Your task to perform on an android device: turn off data saver in the chrome app Image 0: 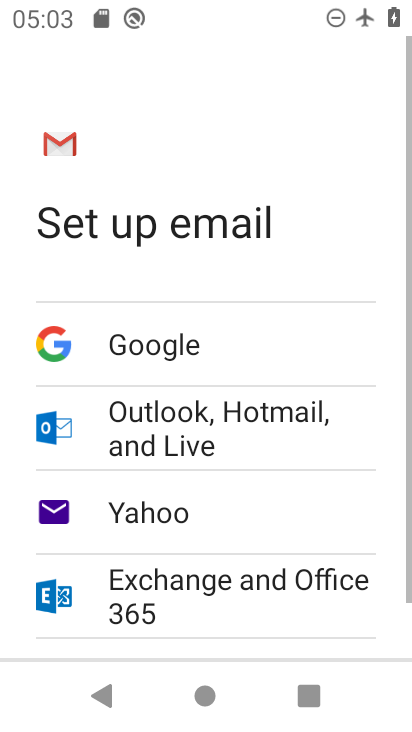
Step 0: press home button
Your task to perform on an android device: turn off data saver in the chrome app Image 1: 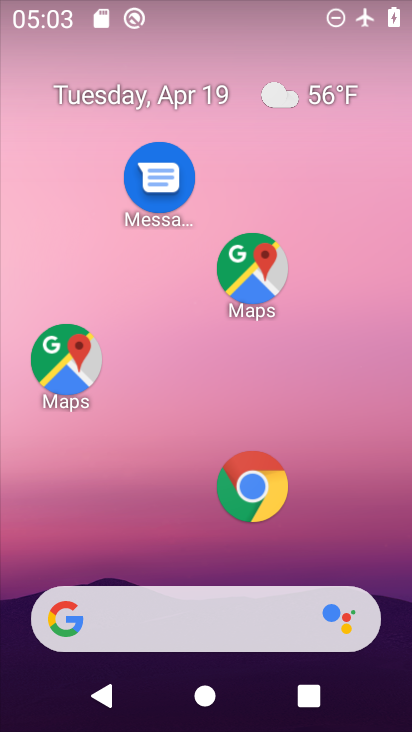
Step 1: click (267, 488)
Your task to perform on an android device: turn off data saver in the chrome app Image 2: 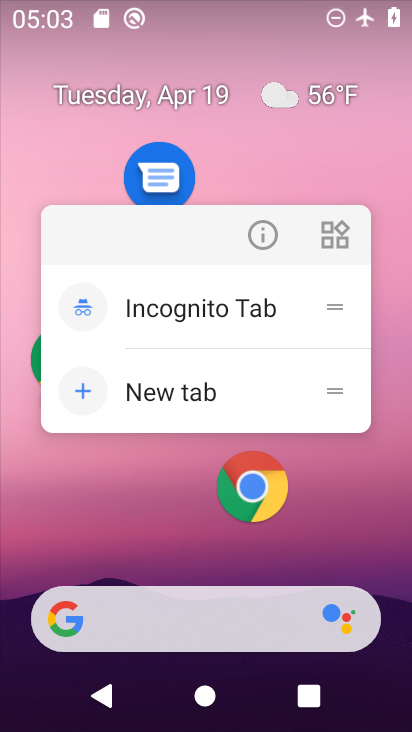
Step 2: click (253, 242)
Your task to perform on an android device: turn off data saver in the chrome app Image 3: 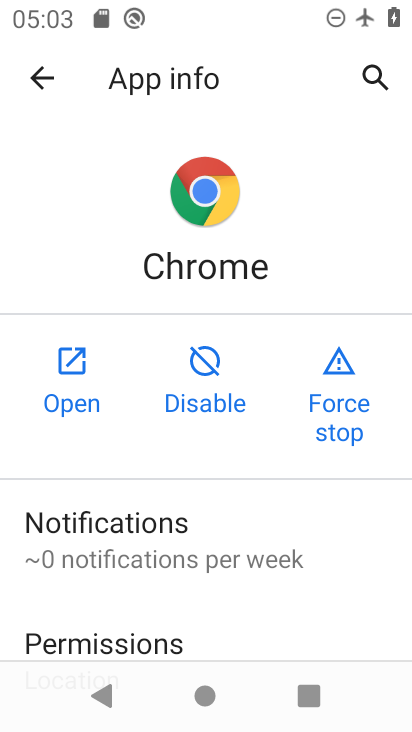
Step 3: click (96, 359)
Your task to perform on an android device: turn off data saver in the chrome app Image 4: 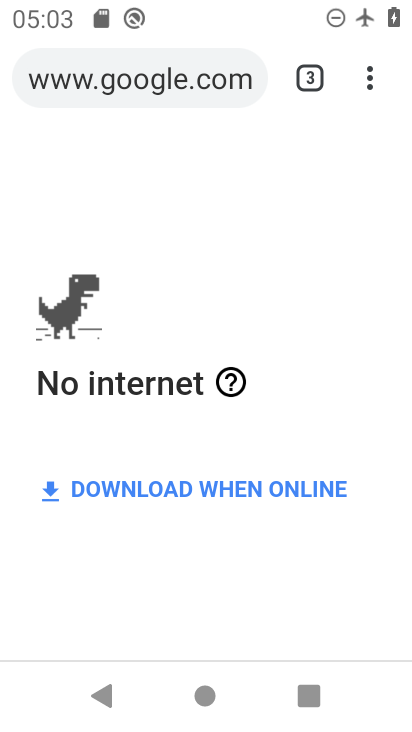
Step 4: click (379, 82)
Your task to perform on an android device: turn off data saver in the chrome app Image 5: 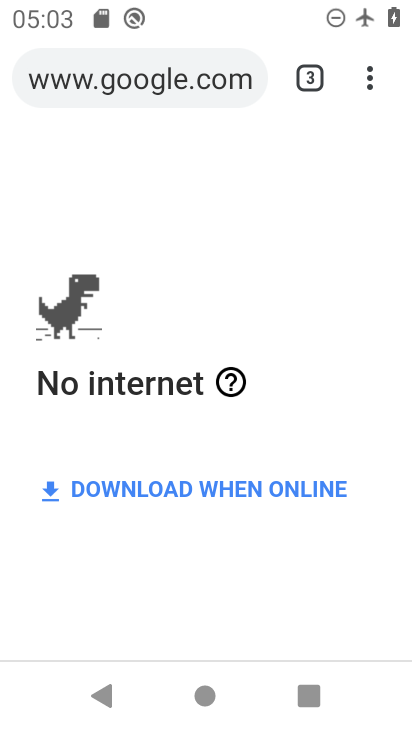
Step 5: click (376, 81)
Your task to perform on an android device: turn off data saver in the chrome app Image 6: 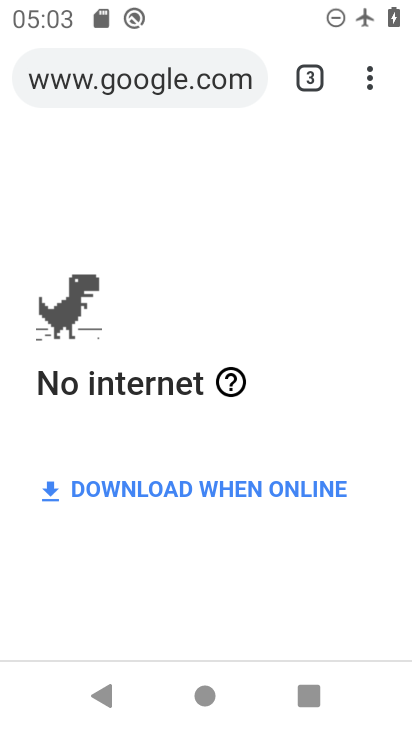
Step 6: click (368, 87)
Your task to perform on an android device: turn off data saver in the chrome app Image 7: 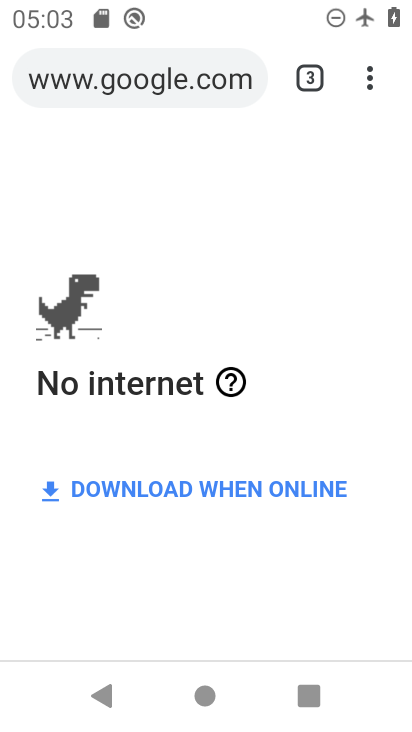
Step 7: click (368, 87)
Your task to perform on an android device: turn off data saver in the chrome app Image 8: 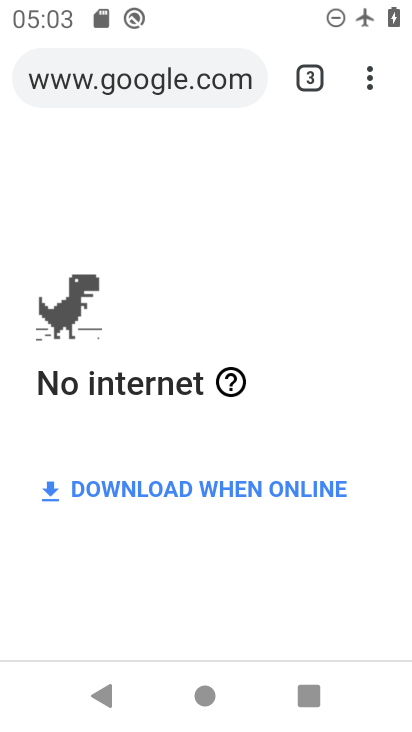
Step 8: click (372, 82)
Your task to perform on an android device: turn off data saver in the chrome app Image 9: 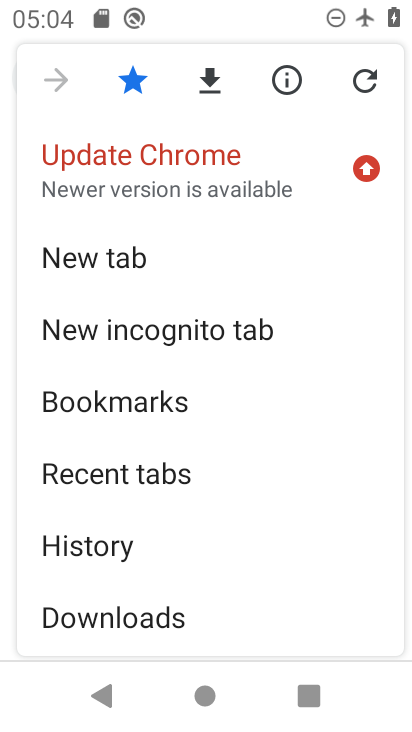
Step 9: drag from (237, 438) to (253, 190)
Your task to perform on an android device: turn off data saver in the chrome app Image 10: 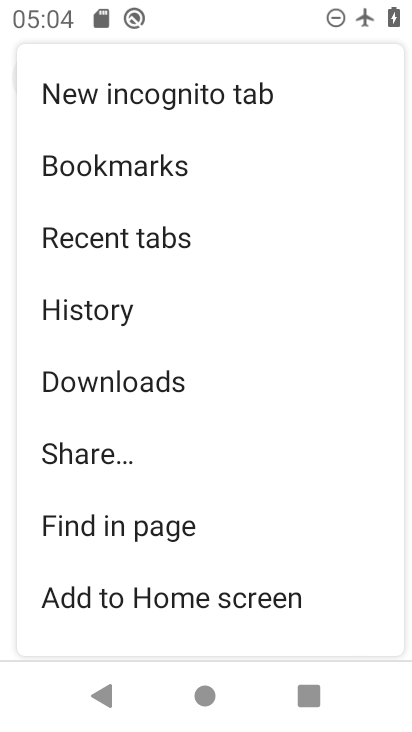
Step 10: drag from (187, 488) to (228, 144)
Your task to perform on an android device: turn off data saver in the chrome app Image 11: 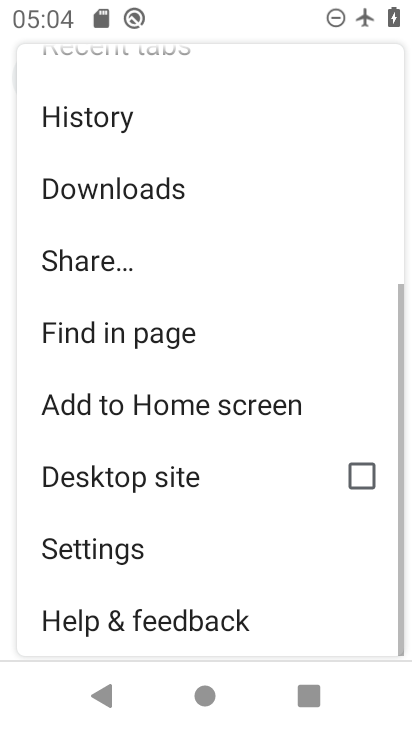
Step 11: click (156, 549)
Your task to perform on an android device: turn off data saver in the chrome app Image 12: 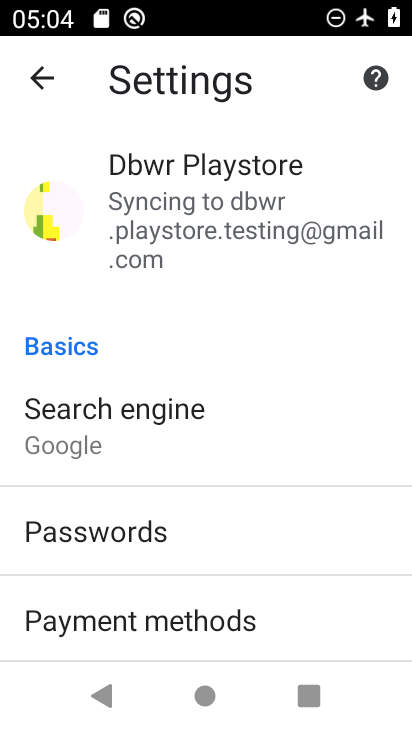
Step 12: drag from (147, 563) to (213, 206)
Your task to perform on an android device: turn off data saver in the chrome app Image 13: 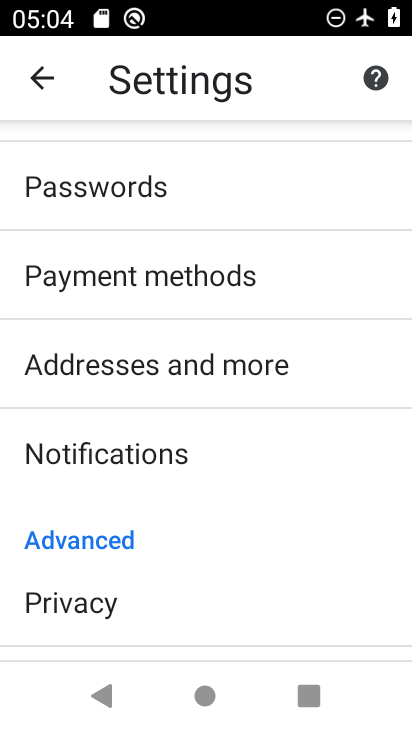
Step 13: drag from (215, 566) to (240, 232)
Your task to perform on an android device: turn off data saver in the chrome app Image 14: 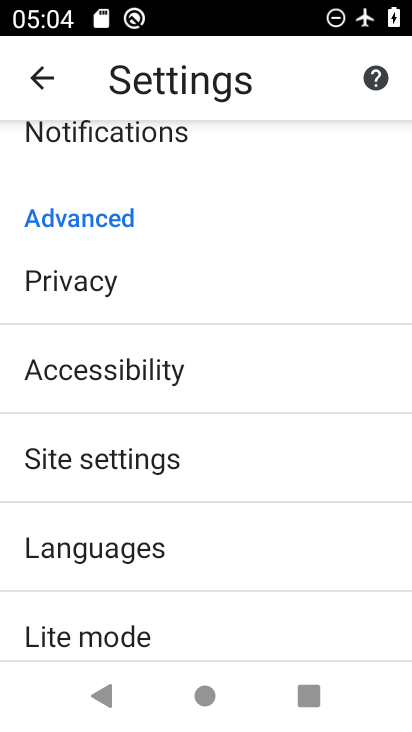
Step 14: click (194, 626)
Your task to perform on an android device: turn off data saver in the chrome app Image 15: 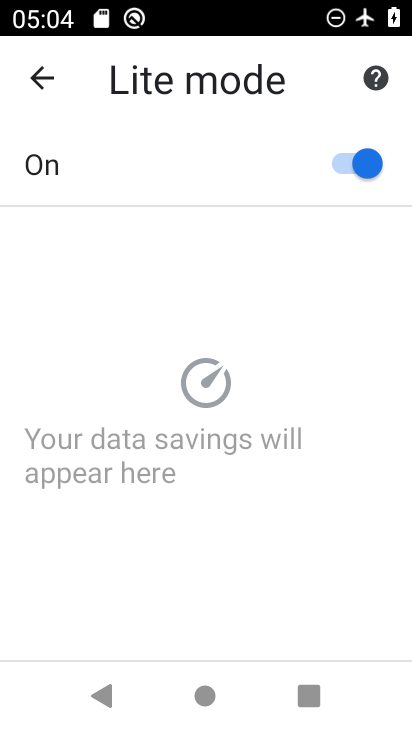
Step 15: click (341, 174)
Your task to perform on an android device: turn off data saver in the chrome app Image 16: 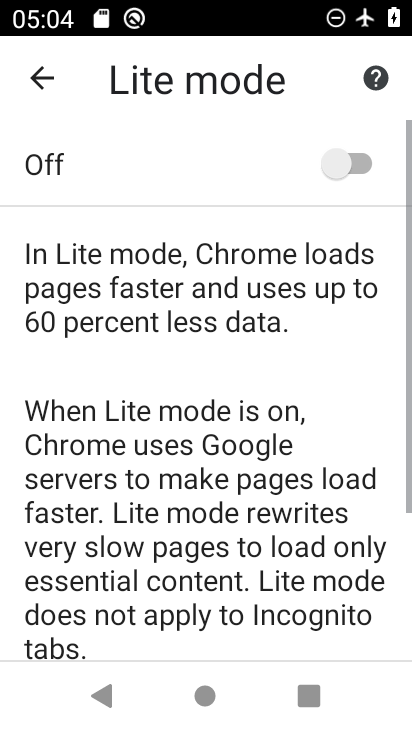
Step 16: task complete